Your task to perform on an android device: set default search engine in the chrome app Image 0: 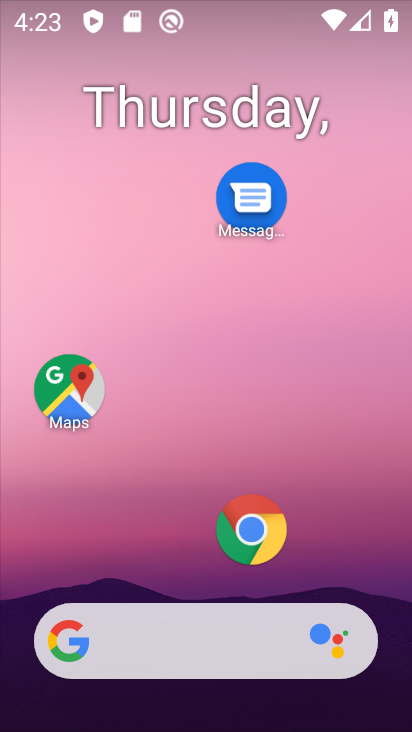
Step 0: drag from (156, 590) to (281, 47)
Your task to perform on an android device: set default search engine in the chrome app Image 1: 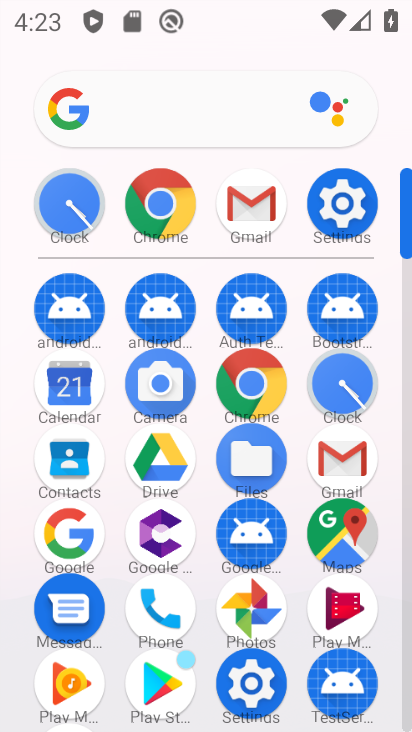
Step 1: click (169, 194)
Your task to perform on an android device: set default search engine in the chrome app Image 2: 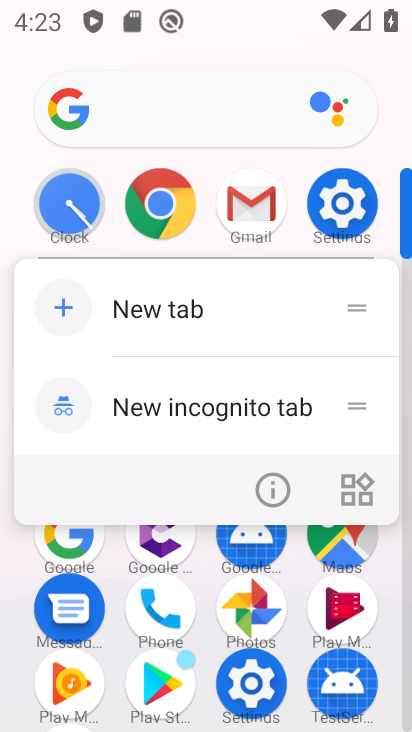
Step 2: click (169, 194)
Your task to perform on an android device: set default search engine in the chrome app Image 3: 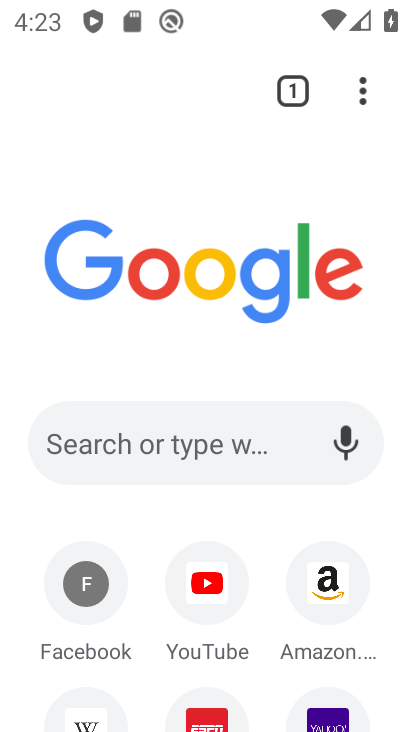
Step 3: drag from (368, 83) to (176, 534)
Your task to perform on an android device: set default search engine in the chrome app Image 4: 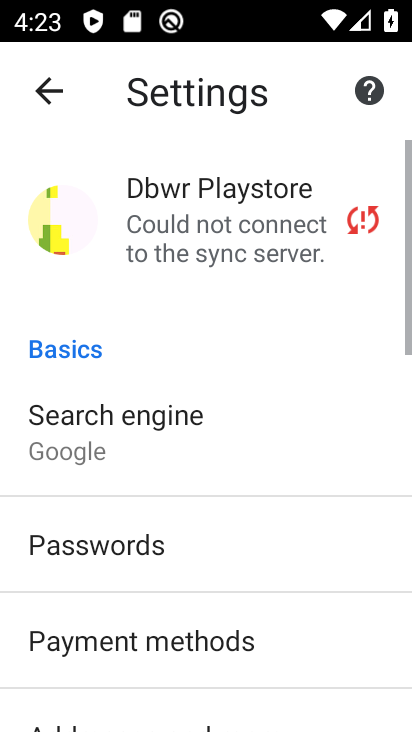
Step 4: drag from (161, 589) to (317, 62)
Your task to perform on an android device: set default search engine in the chrome app Image 5: 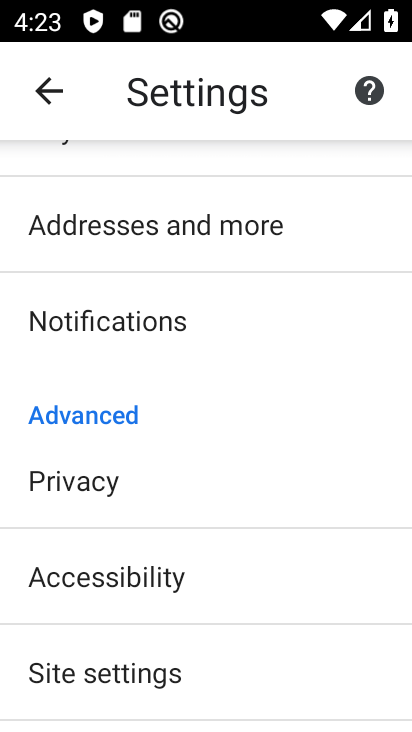
Step 5: drag from (144, 300) to (80, 729)
Your task to perform on an android device: set default search engine in the chrome app Image 6: 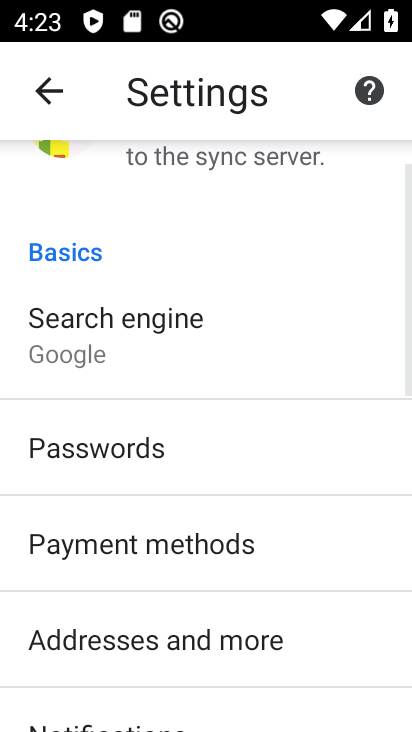
Step 6: click (88, 348)
Your task to perform on an android device: set default search engine in the chrome app Image 7: 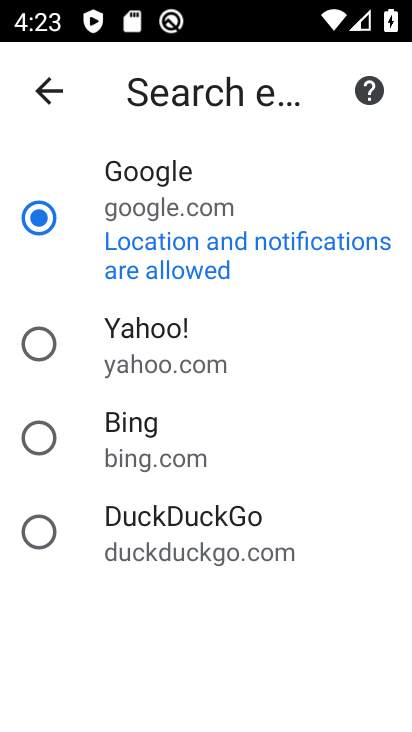
Step 7: click (116, 341)
Your task to perform on an android device: set default search engine in the chrome app Image 8: 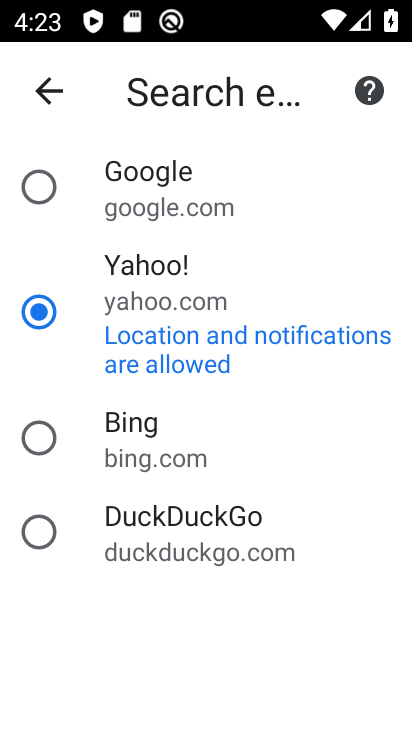
Step 8: task complete